Your task to perform on an android device: star an email in the gmail app Image 0: 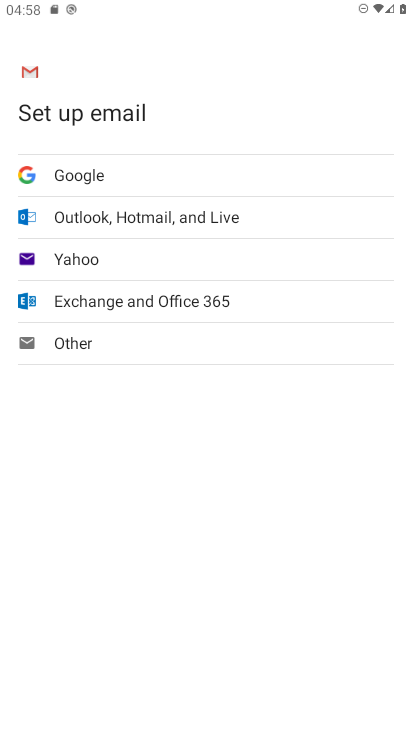
Step 0: press home button
Your task to perform on an android device: star an email in the gmail app Image 1: 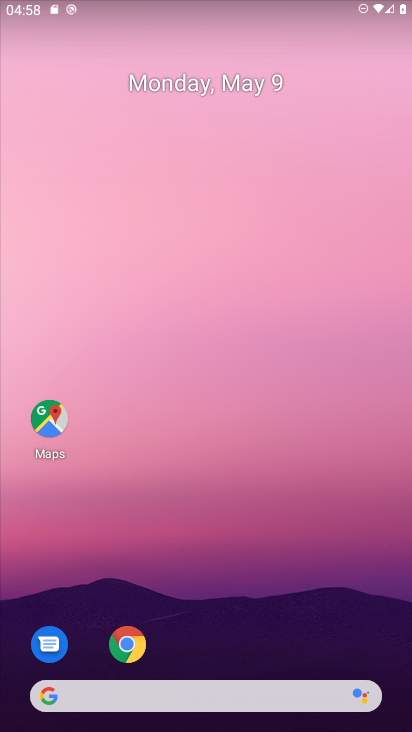
Step 1: drag from (233, 610) to (174, 97)
Your task to perform on an android device: star an email in the gmail app Image 2: 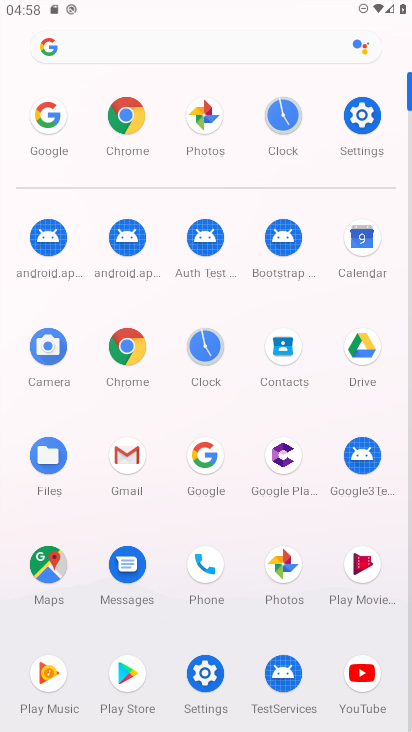
Step 2: click (125, 455)
Your task to perform on an android device: star an email in the gmail app Image 3: 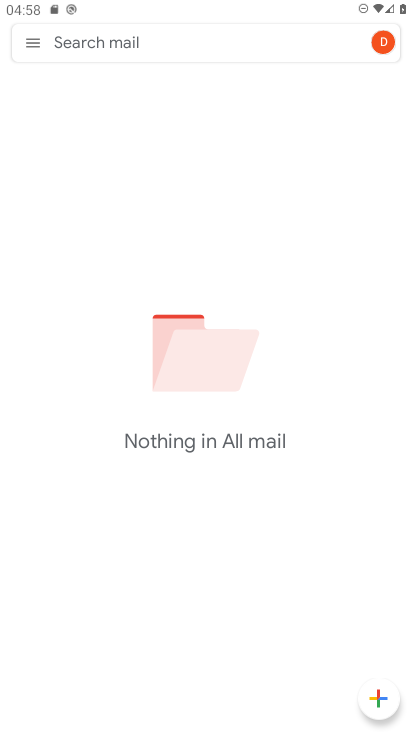
Step 3: click (33, 42)
Your task to perform on an android device: star an email in the gmail app Image 4: 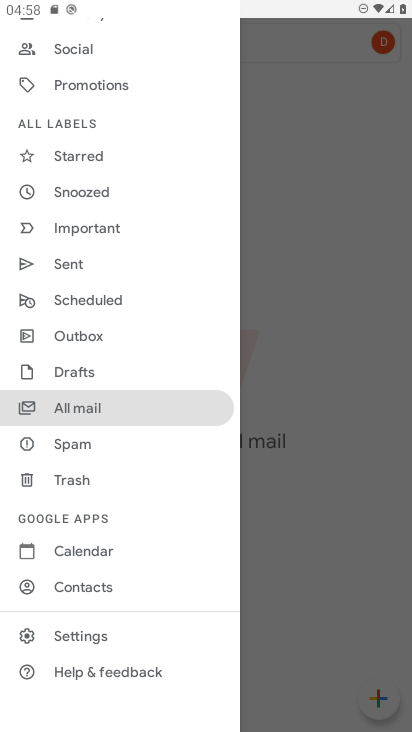
Step 4: drag from (94, 217) to (105, 366)
Your task to perform on an android device: star an email in the gmail app Image 5: 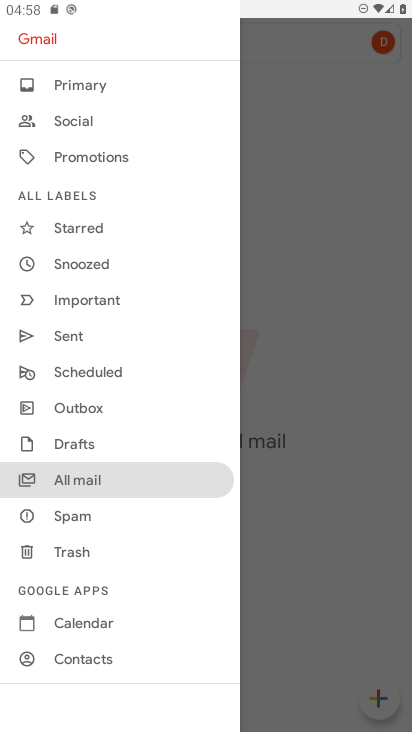
Step 5: click (88, 86)
Your task to perform on an android device: star an email in the gmail app Image 6: 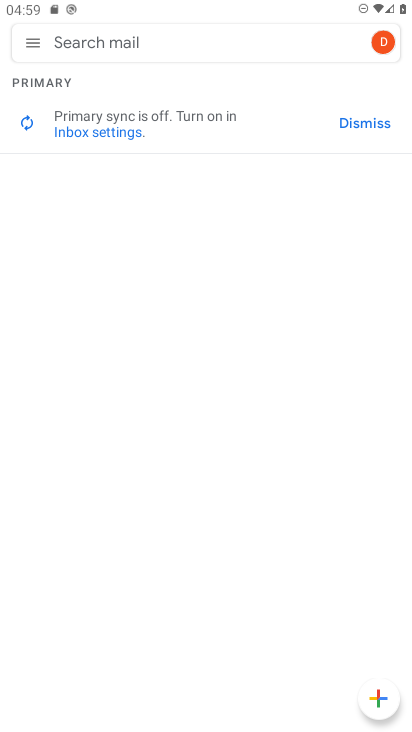
Step 6: click (33, 39)
Your task to perform on an android device: star an email in the gmail app Image 7: 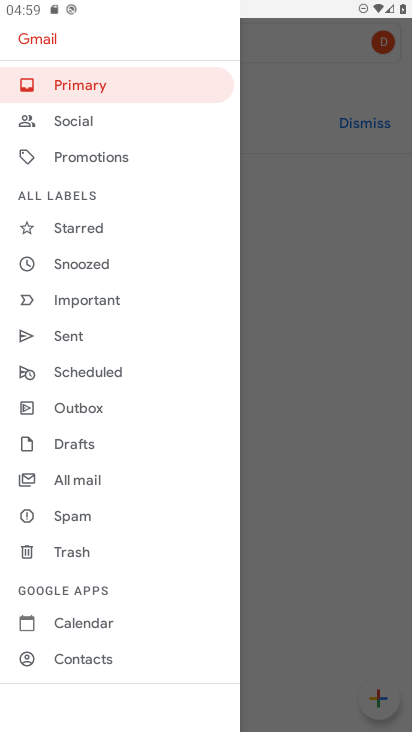
Step 7: click (63, 466)
Your task to perform on an android device: star an email in the gmail app Image 8: 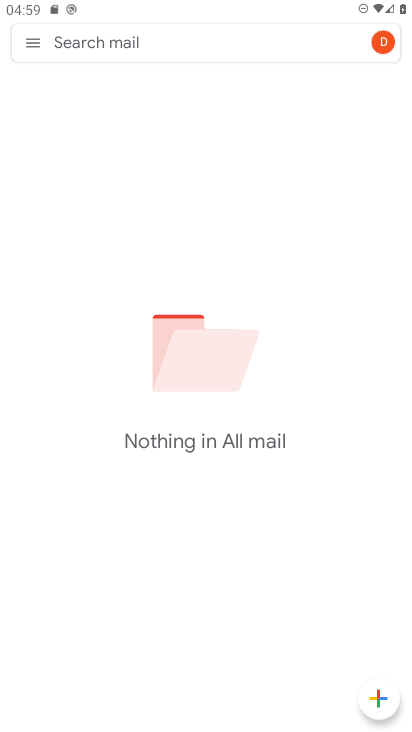
Step 8: task complete